Your task to perform on an android device: add a contact Image 0: 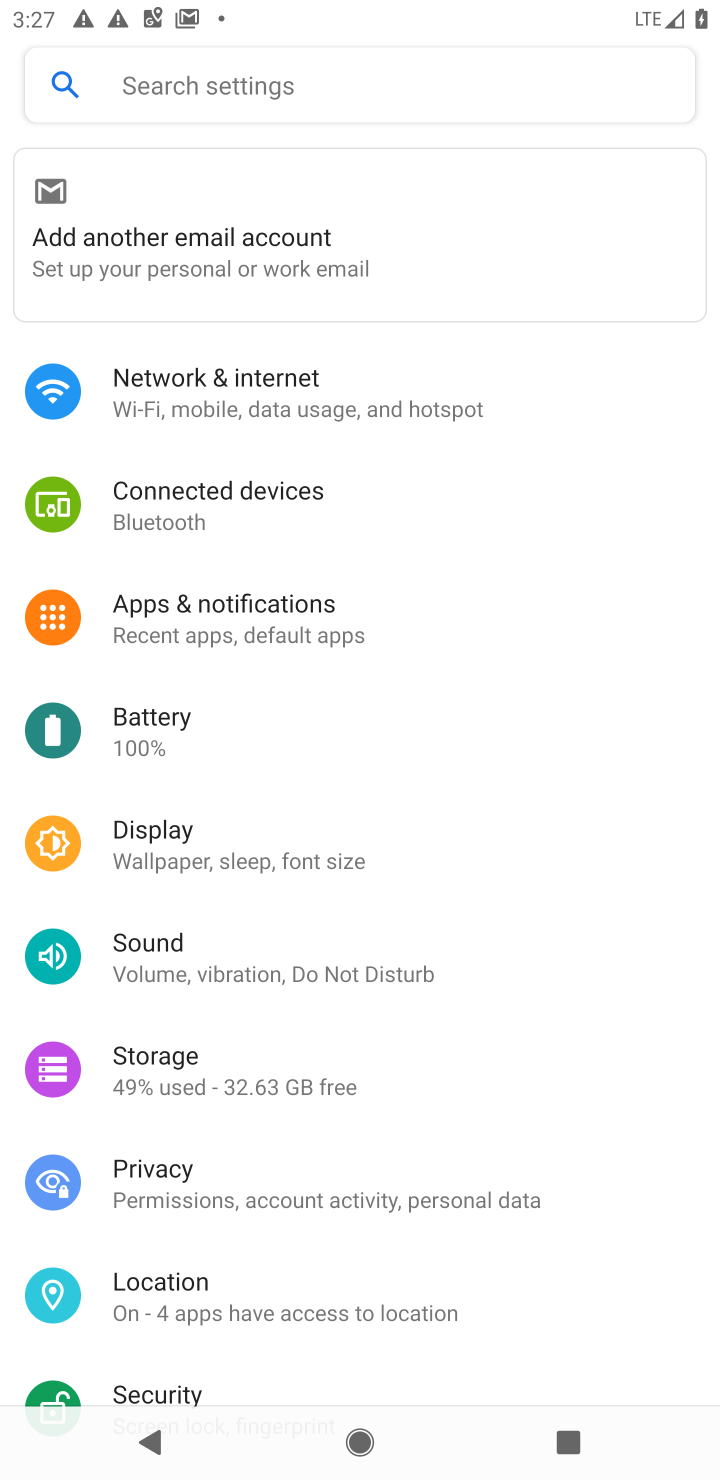
Step 0: press home button
Your task to perform on an android device: add a contact Image 1: 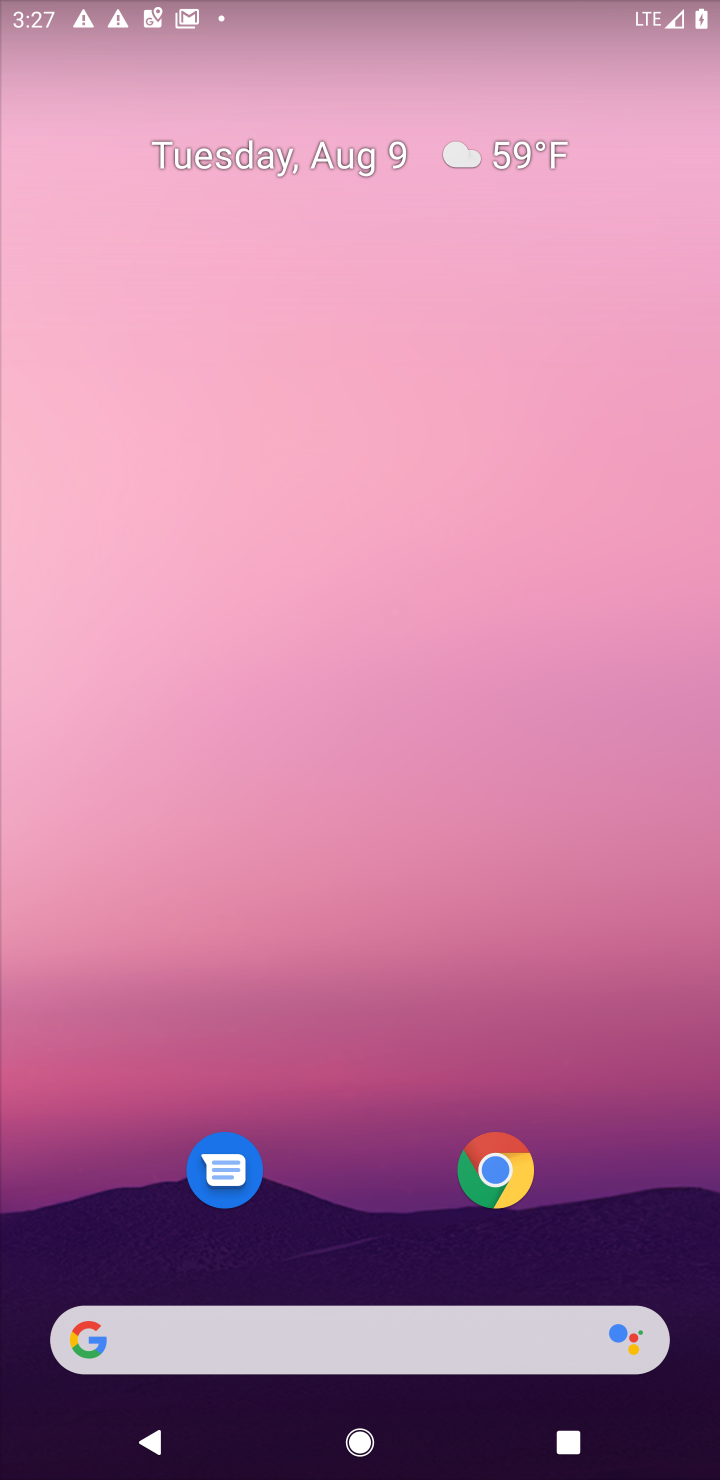
Step 1: drag from (379, 1158) to (231, 46)
Your task to perform on an android device: add a contact Image 2: 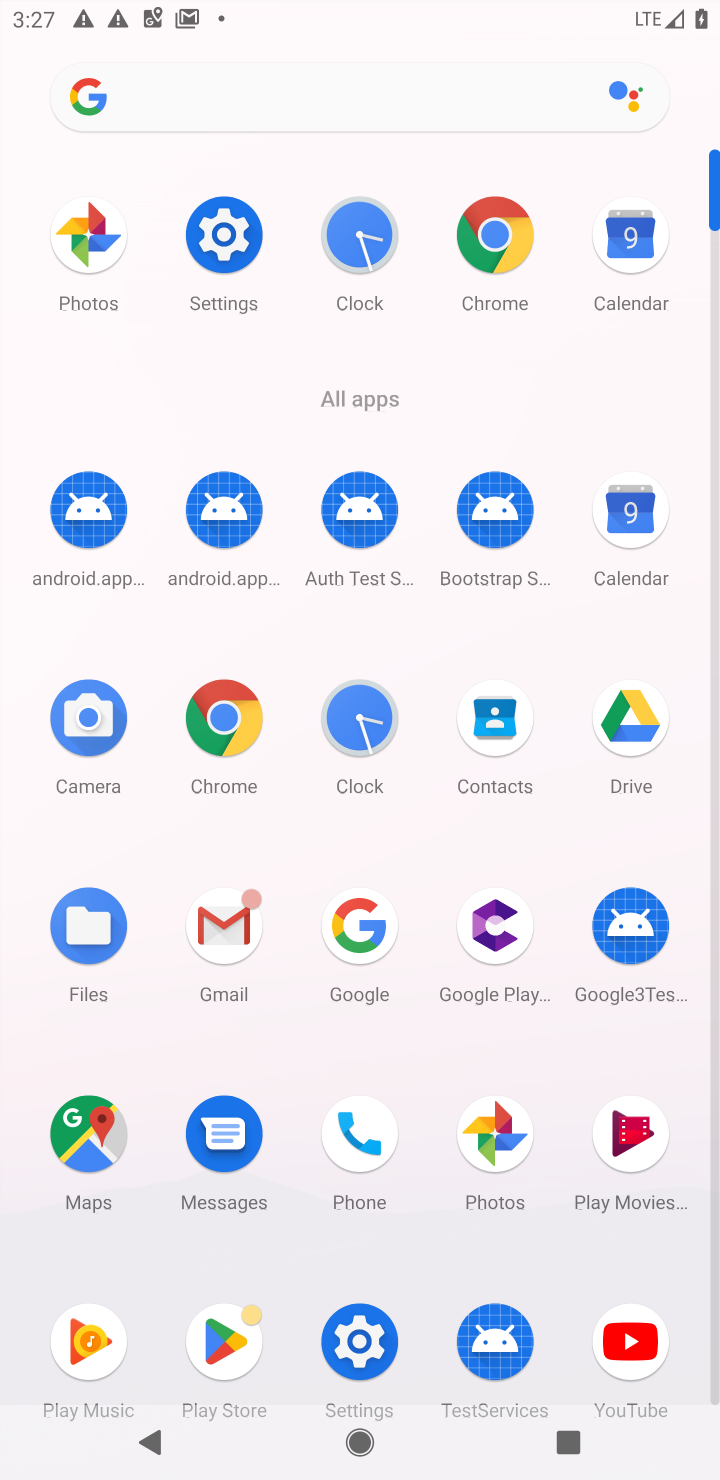
Step 2: click (490, 724)
Your task to perform on an android device: add a contact Image 3: 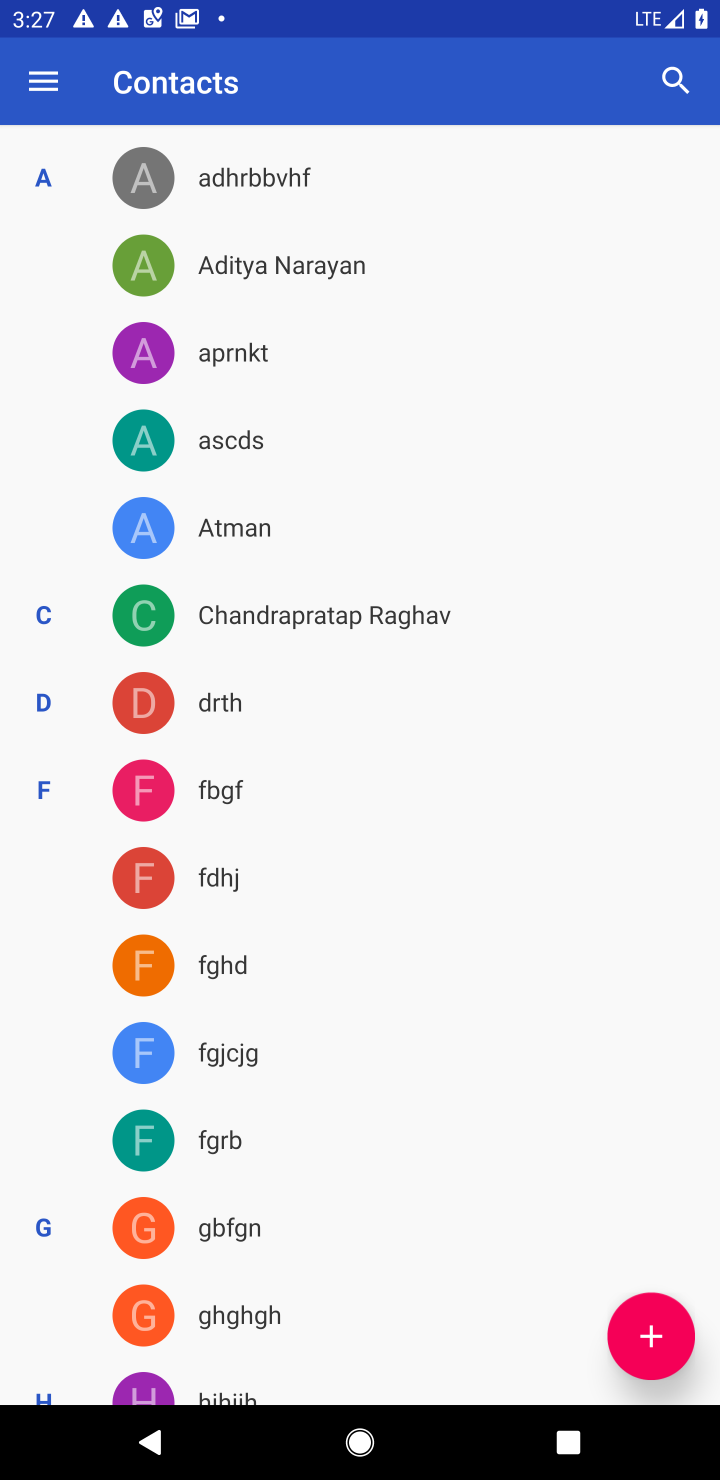
Step 3: click (658, 1332)
Your task to perform on an android device: add a contact Image 4: 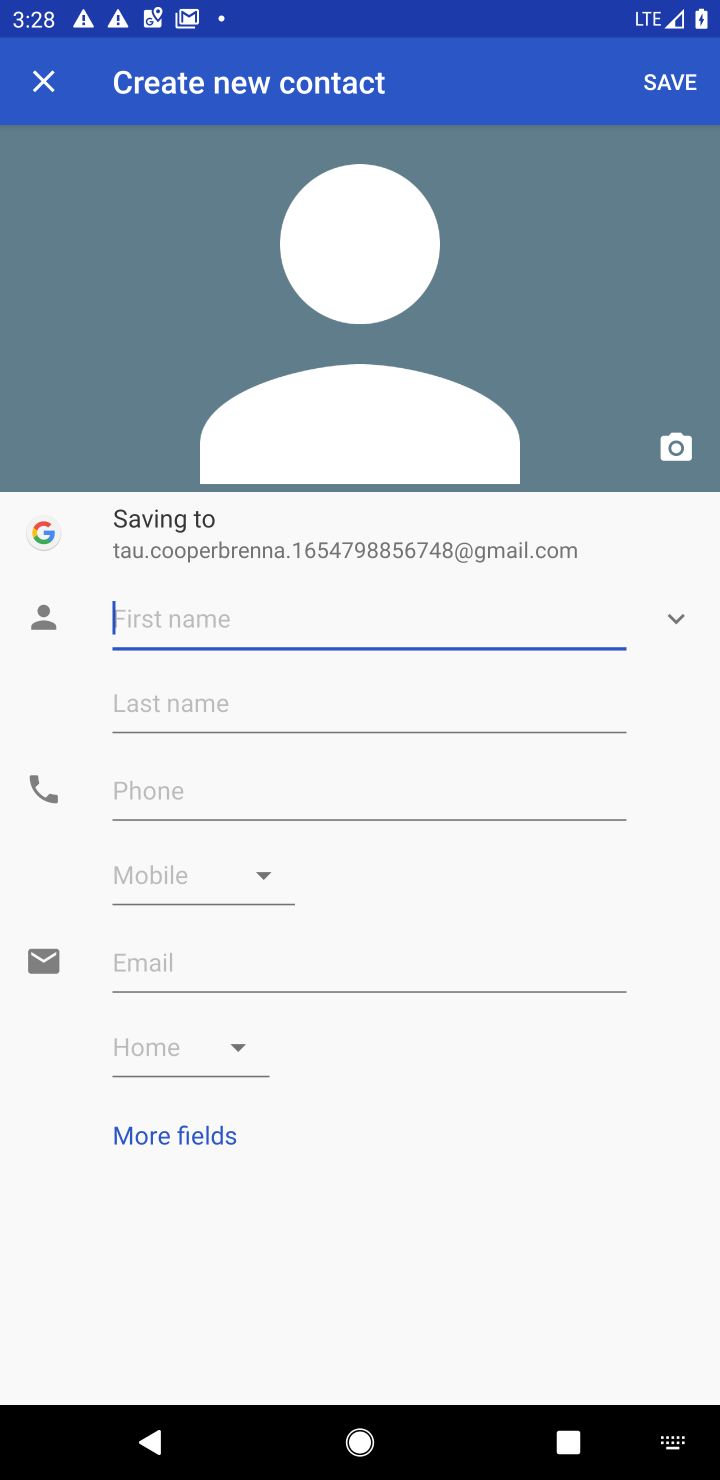
Step 4: type "hjhkhkhkh"
Your task to perform on an android device: add a contact Image 5: 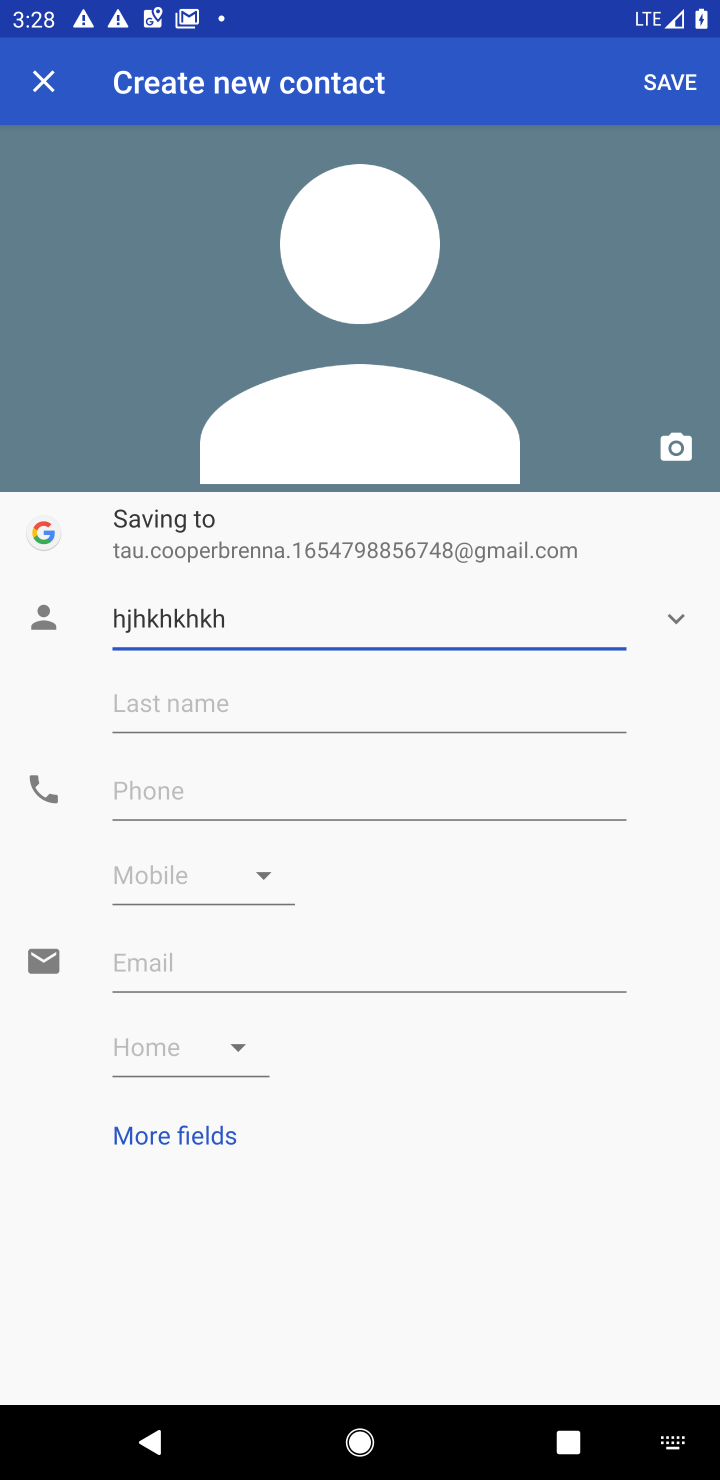
Step 5: click (431, 760)
Your task to perform on an android device: add a contact Image 6: 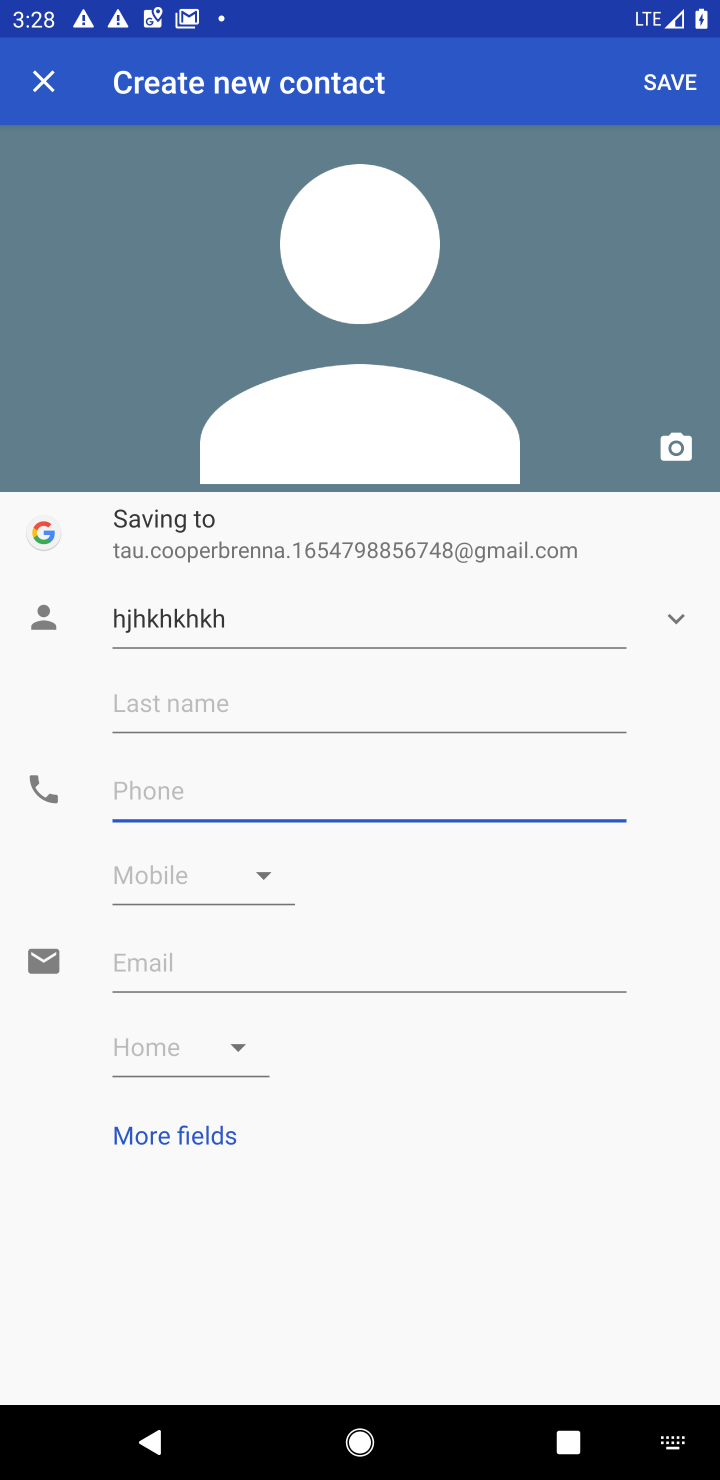
Step 6: type "7887878"
Your task to perform on an android device: add a contact Image 7: 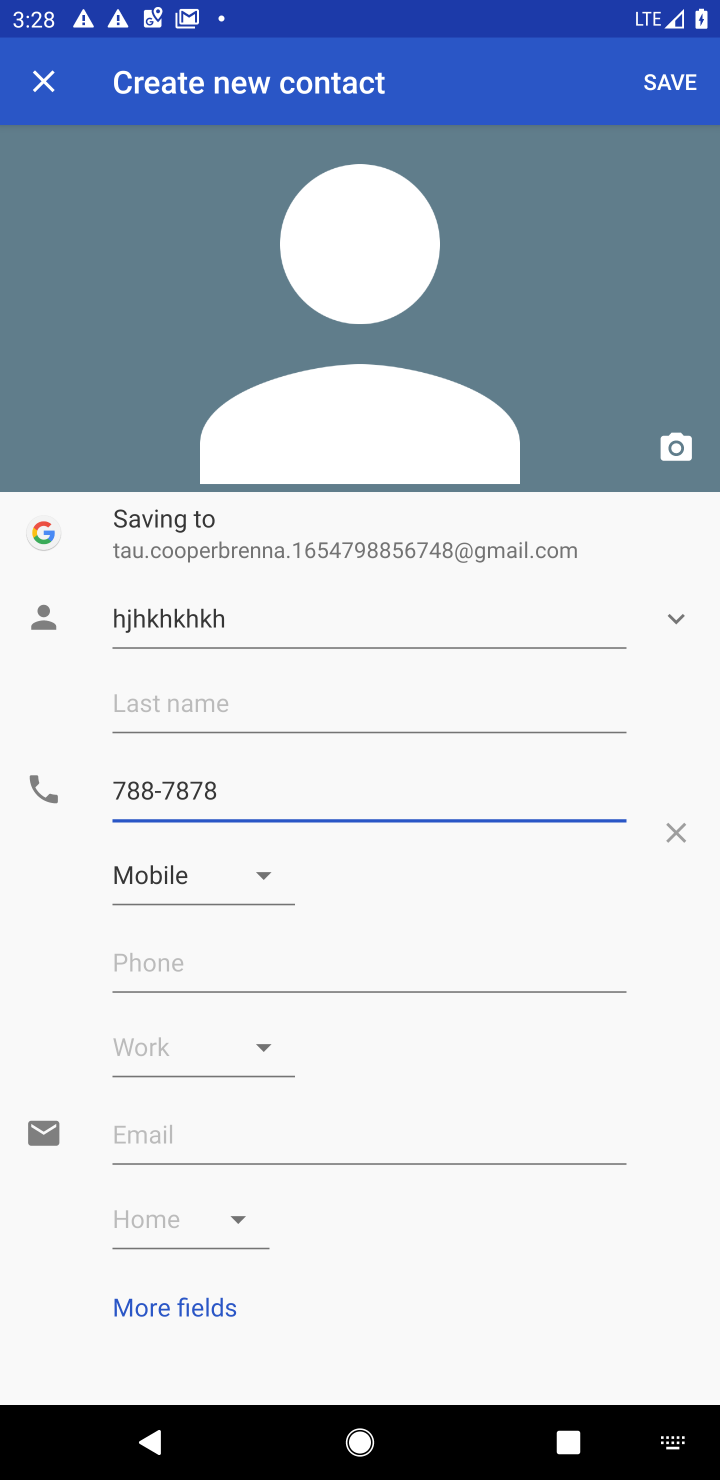
Step 7: click (670, 81)
Your task to perform on an android device: add a contact Image 8: 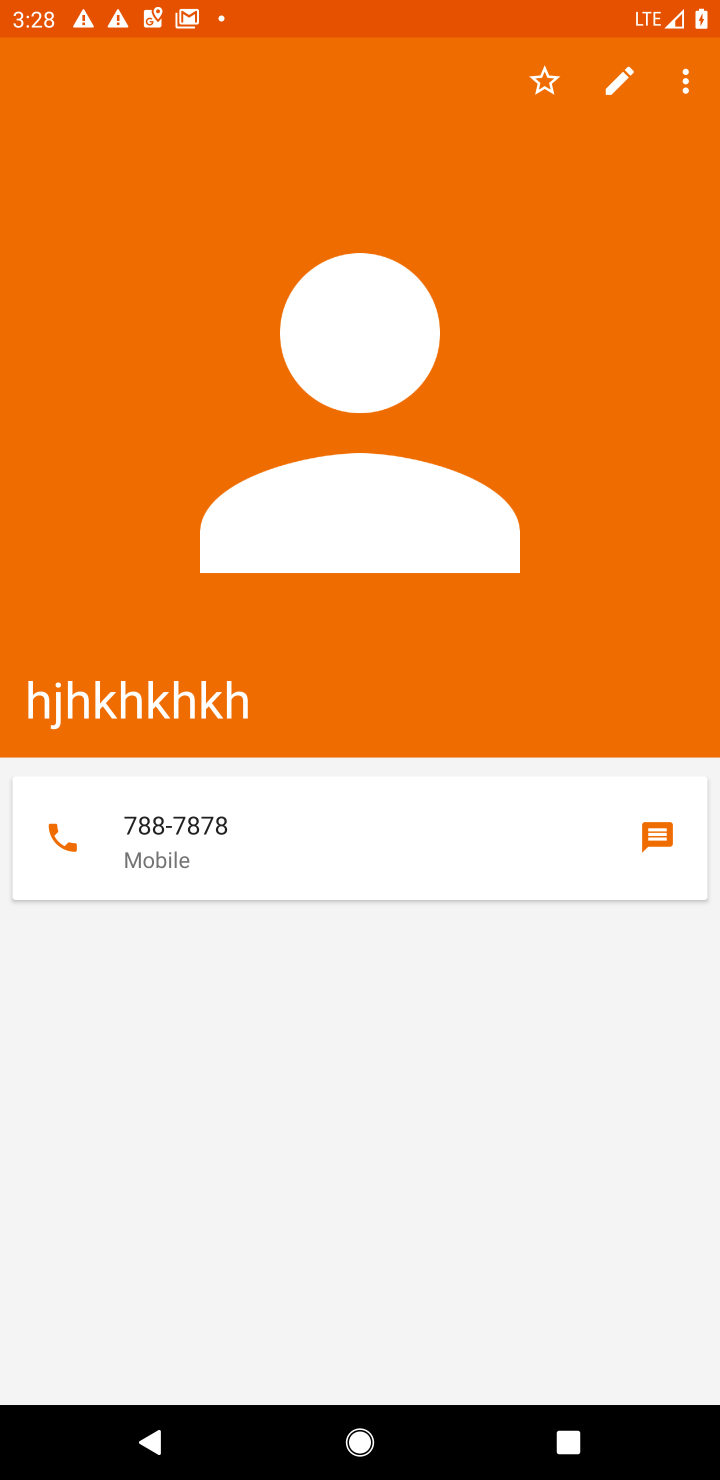
Step 8: task complete